Your task to perform on an android device: Go to battery settings Image 0: 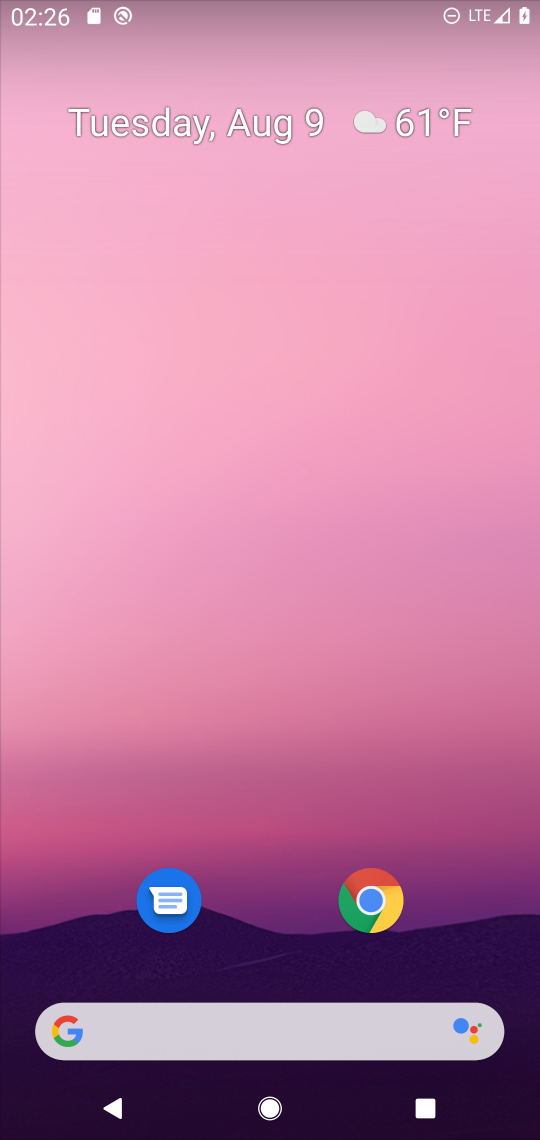
Step 0: press home button
Your task to perform on an android device: Go to battery settings Image 1: 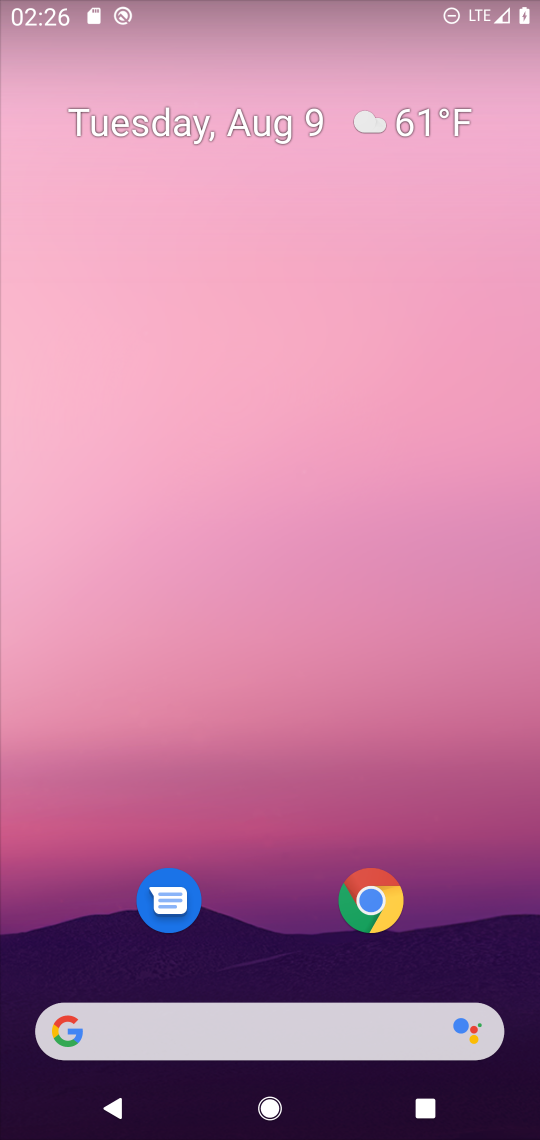
Step 1: drag from (279, 930) to (302, 107)
Your task to perform on an android device: Go to battery settings Image 2: 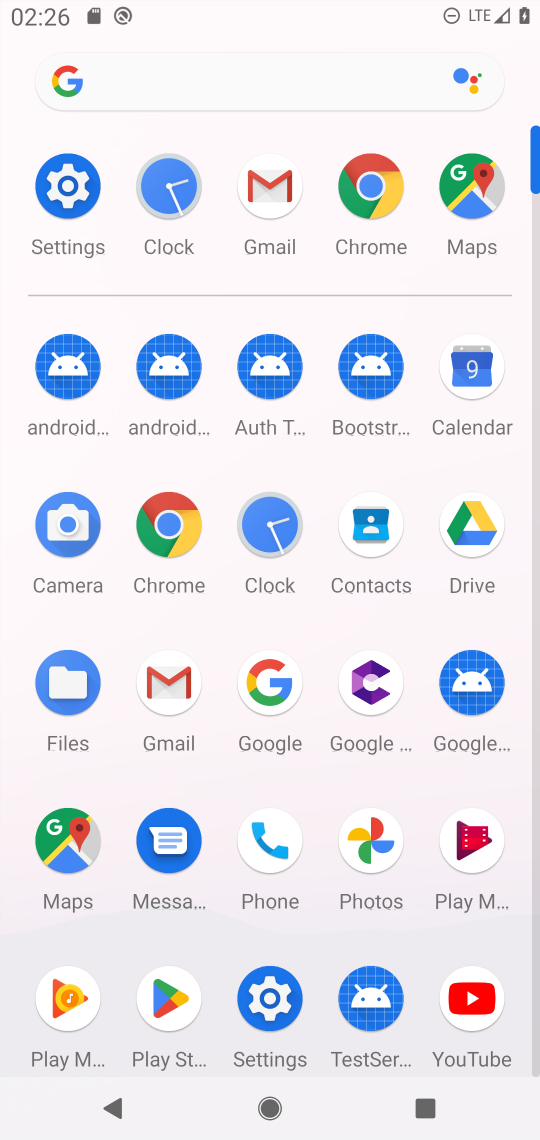
Step 2: click (64, 179)
Your task to perform on an android device: Go to battery settings Image 3: 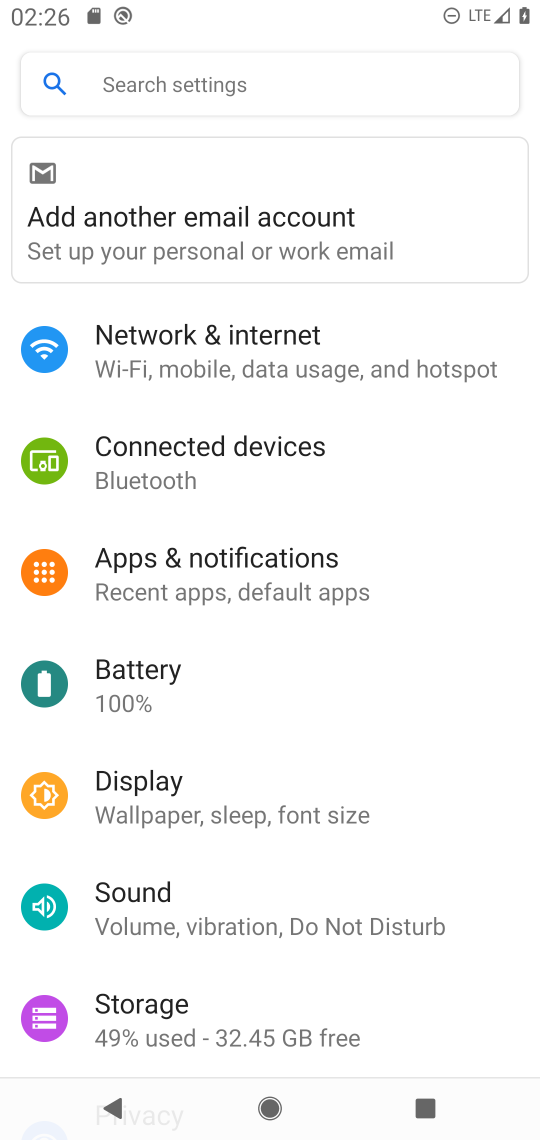
Step 3: drag from (478, 730) to (464, 527)
Your task to perform on an android device: Go to battery settings Image 4: 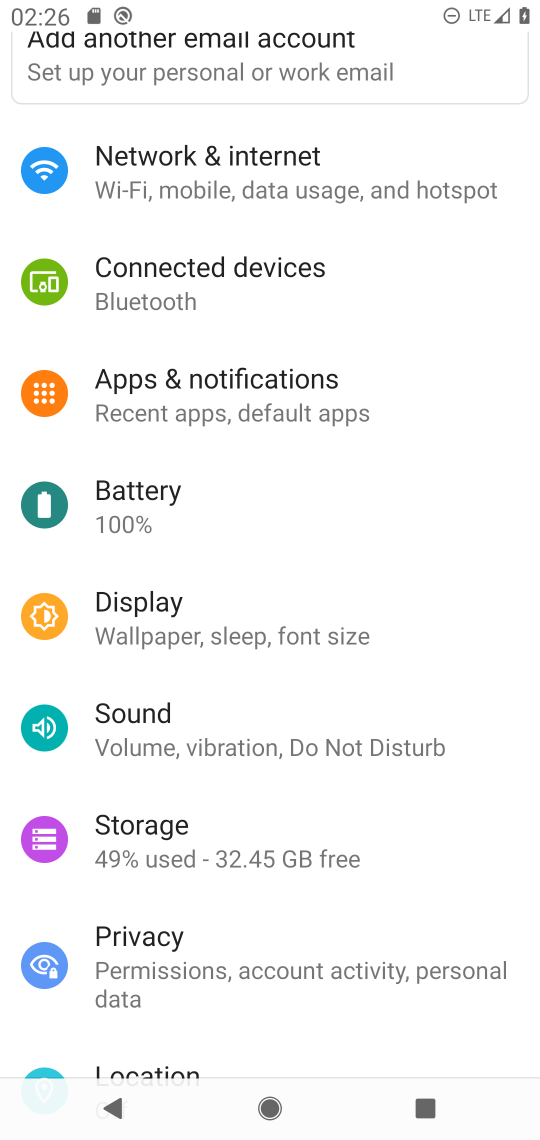
Step 4: drag from (462, 792) to (460, 561)
Your task to perform on an android device: Go to battery settings Image 5: 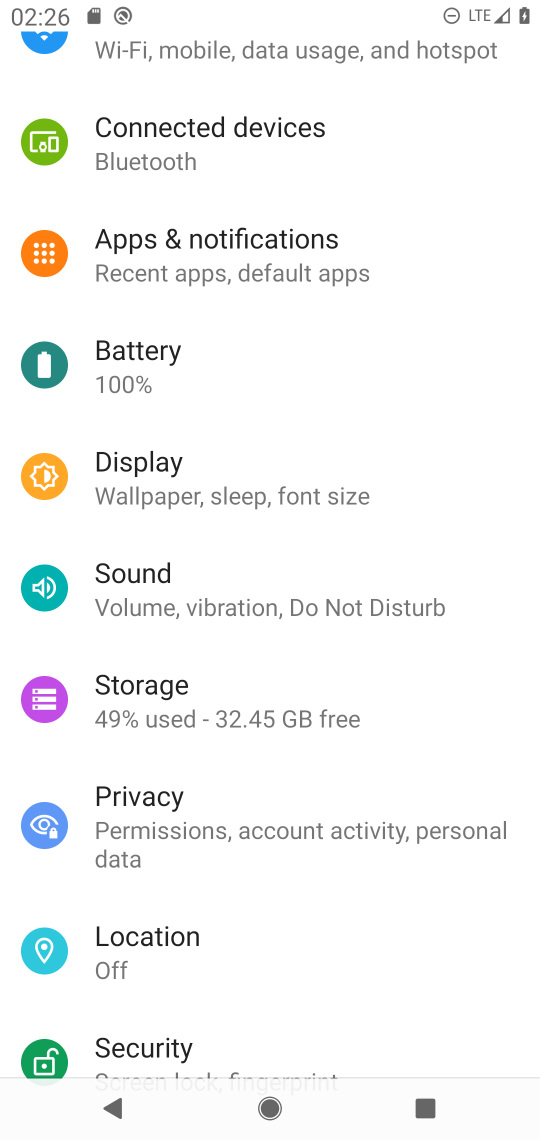
Step 5: drag from (485, 927) to (482, 682)
Your task to perform on an android device: Go to battery settings Image 6: 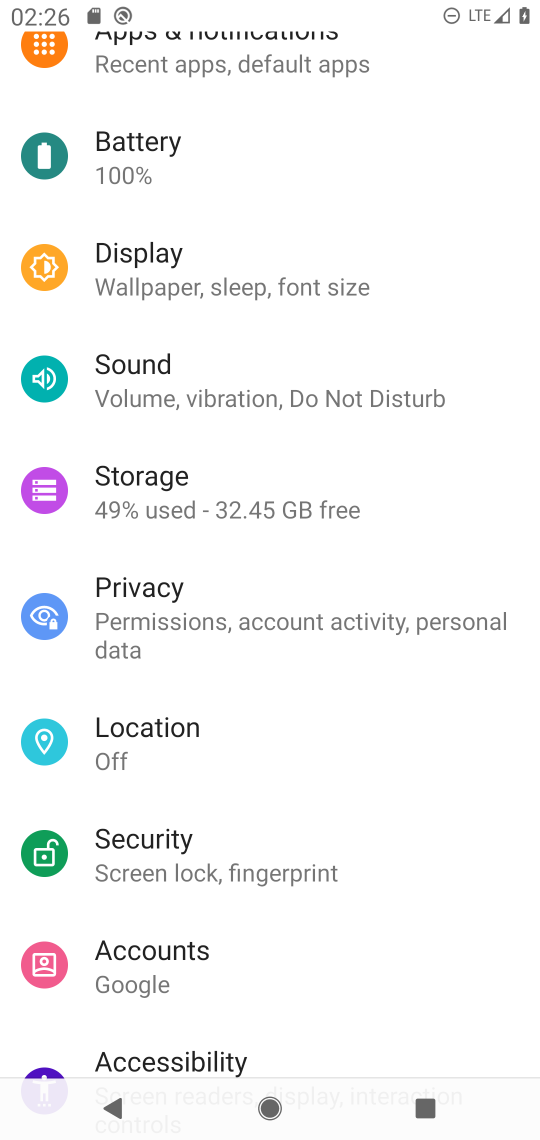
Step 6: drag from (478, 939) to (482, 683)
Your task to perform on an android device: Go to battery settings Image 7: 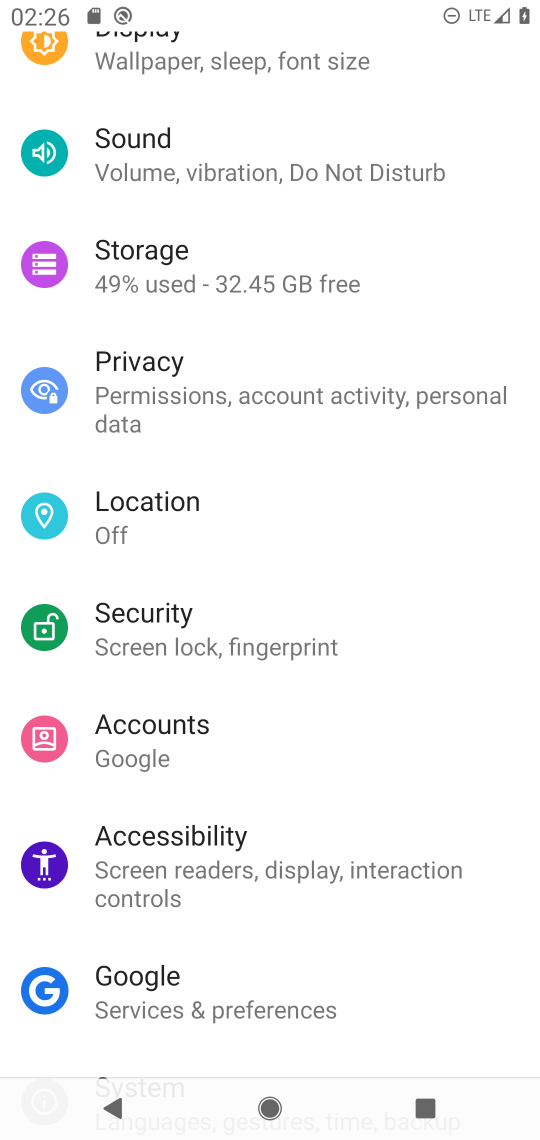
Step 7: drag from (474, 942) to (476, 751)
Your task to perform on an android device: Go to battery settings Image 8: 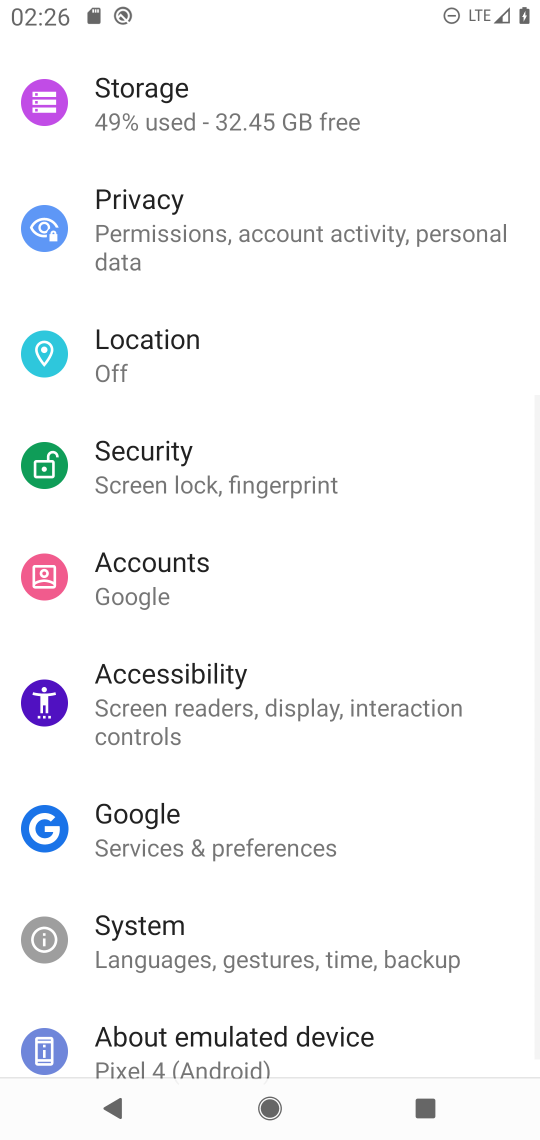
Step 8: drag from (484, 513) to (492, 678)
Your task to perform on an android device: Go to battery settings Image 9: 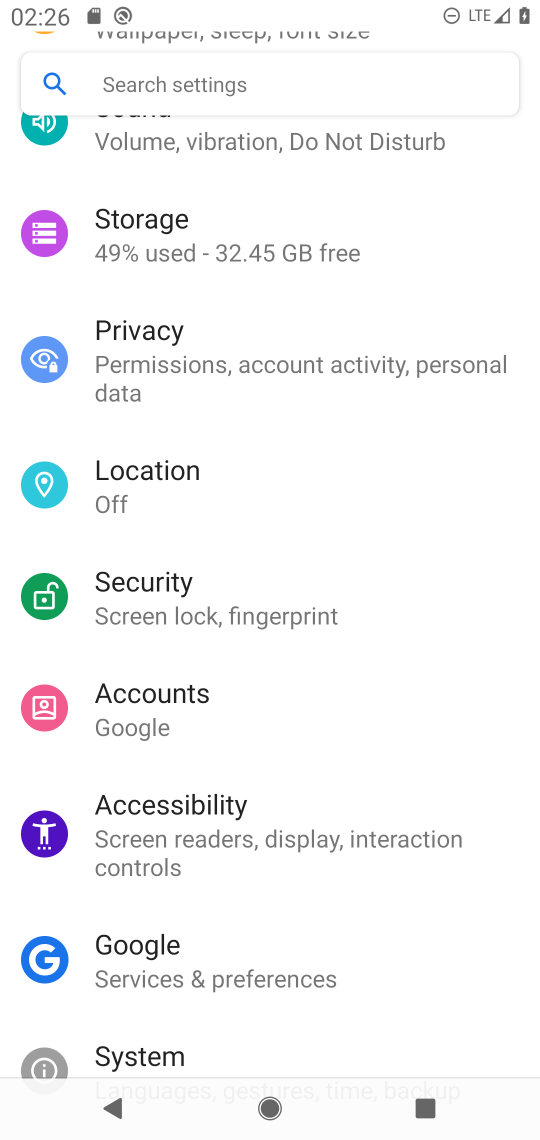
Step 9: drag from (492, 536) to (487, 663)
Your task to perform on an android device: Go to battery settings Image 10: 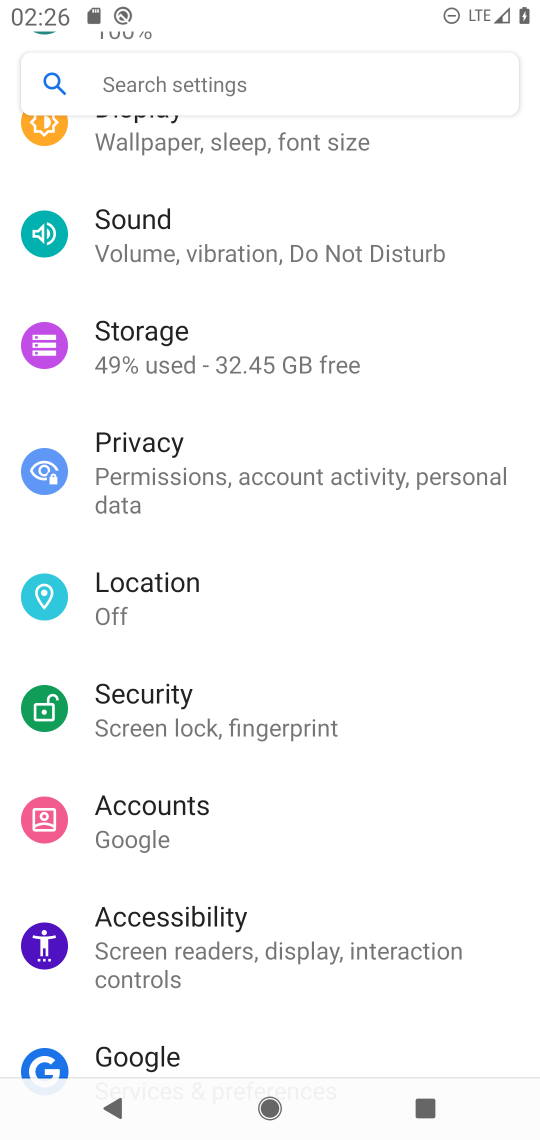
Step 10: drag from (486, 588) to (491, 725)
Your task to perform on an android device: Go to battery settings Image 11: 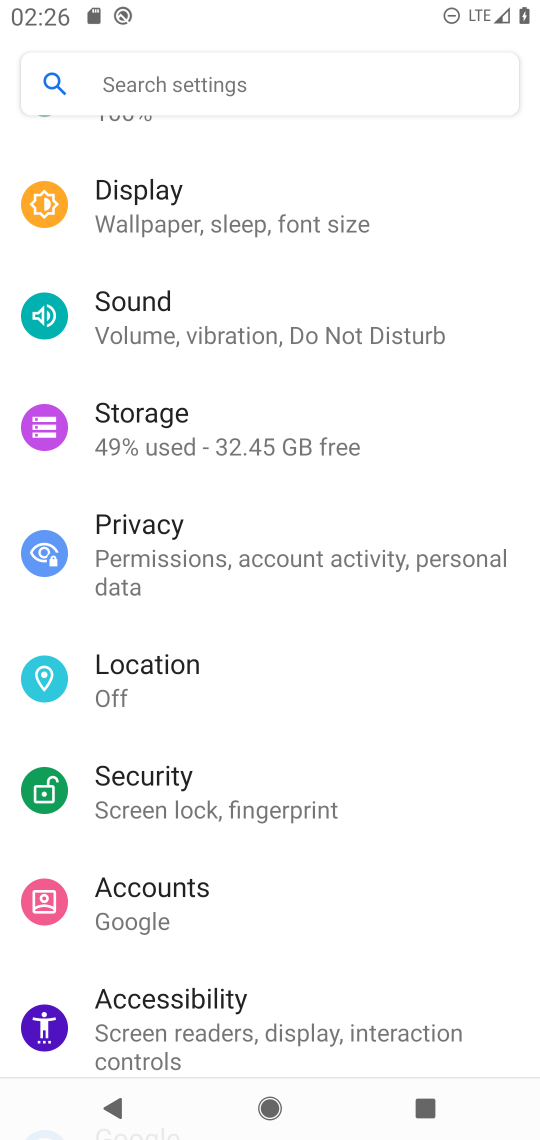
Step 11: drag from (476, 394) to (471, 647)
Your task to perform on an android device: Go to battery settings Image 12: 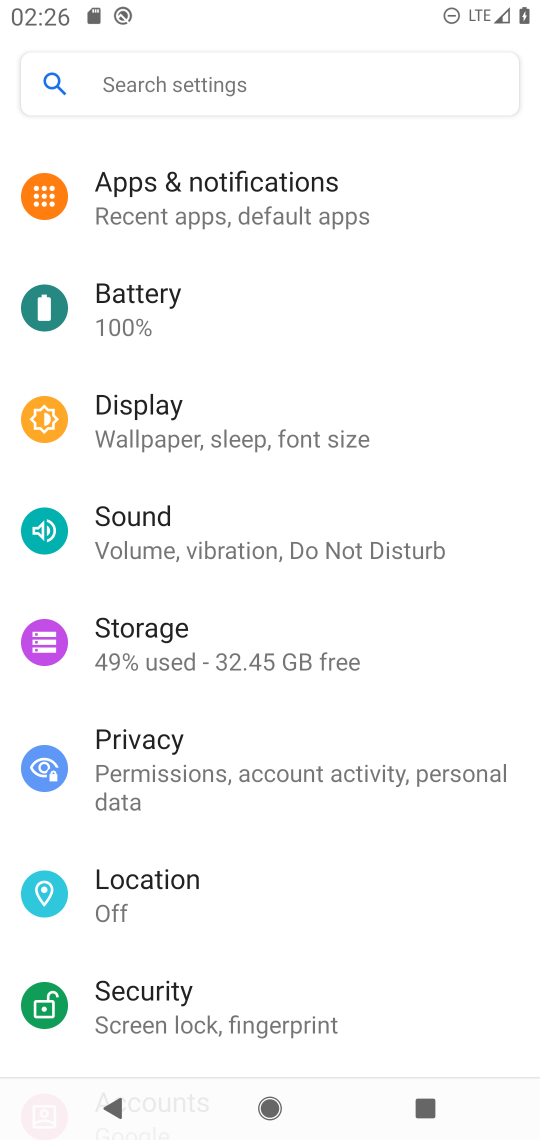
Step 12: drag from (467, 384) to (468, 667)
Your task to perform on an android device: Go to battery settings Image 13: 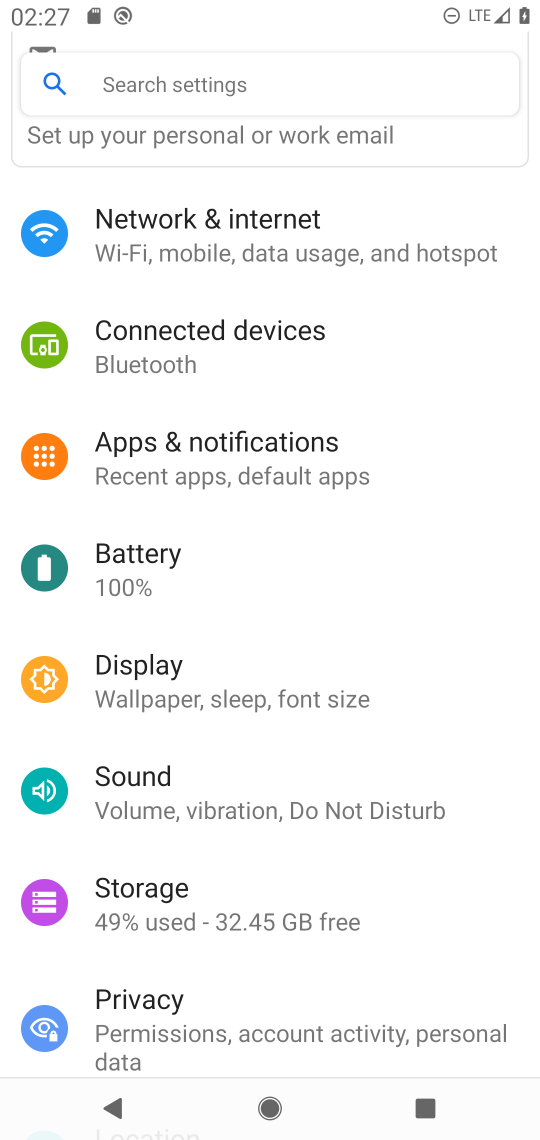
Step 13: drag from (449, 390) to (431, 726)
Your task to perform on an android device: Go to battery settings Image 14: 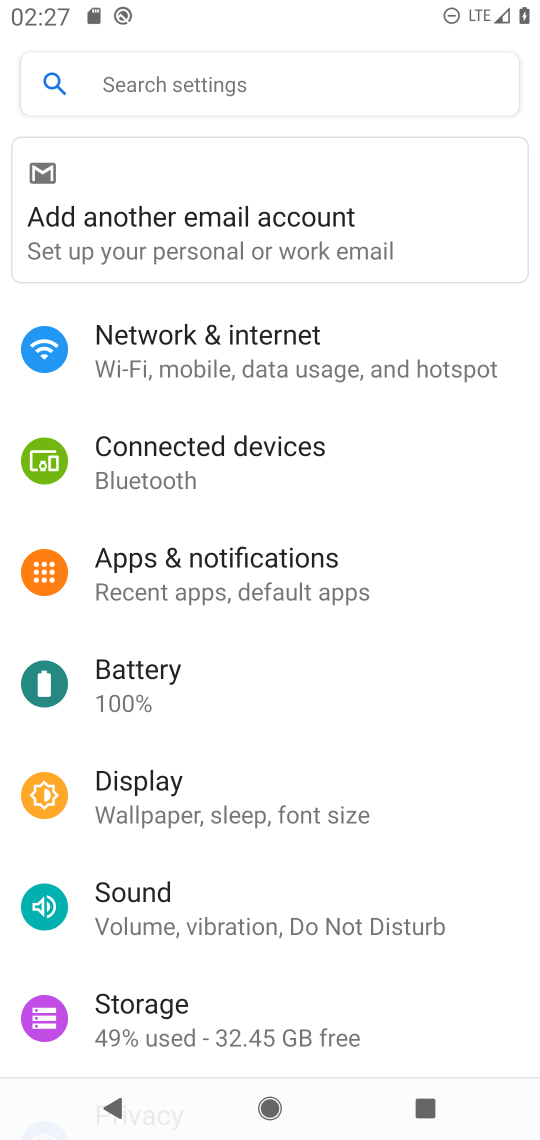
Step 14: click (161, 683)
Your task to perform on an android device: Go to battery settings Image 15: 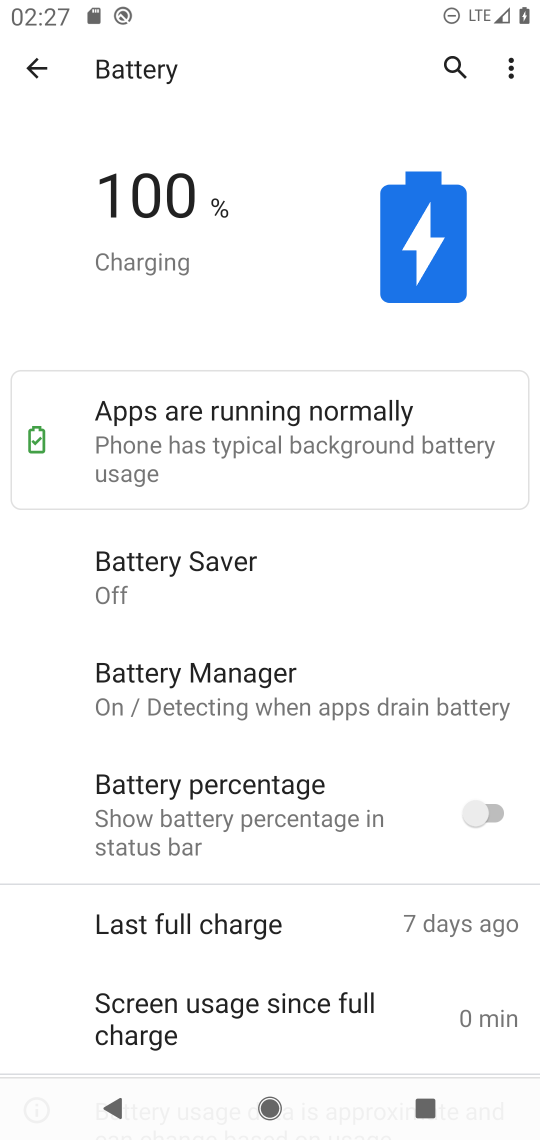
Step 15: task complete